Your task to perform on an android device: open the mobile data screen to see how much data has been used Image 0: 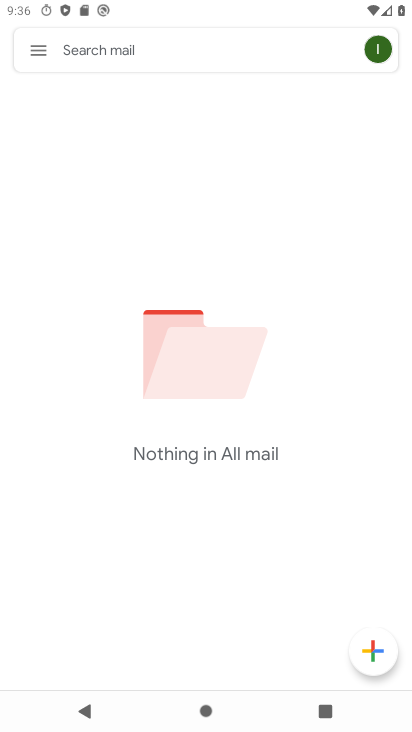
Step 0: press home button
Your task to perform on an android device: open the mobile data screen to see how much data has been used Image 1: 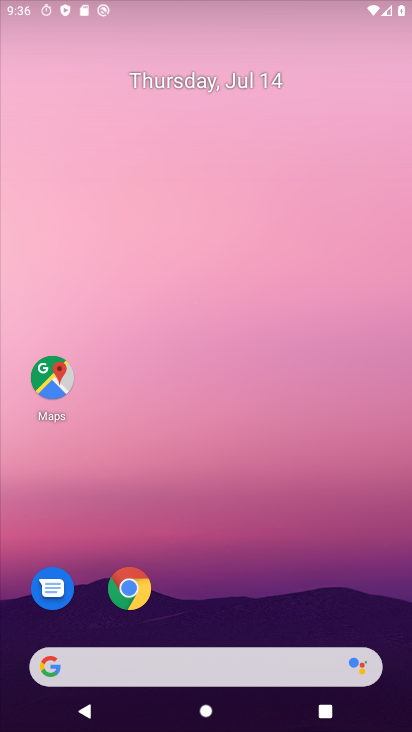
Step 1: drag from (206, 645) to (177, 222)
Your task to perform on an android device: open the mobile data screen to see how much data has been used Image 2: 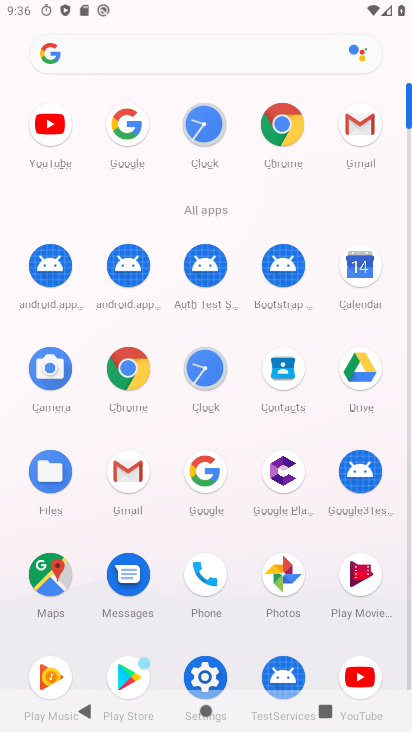
Step 2: click (197, 679)
Your task to perform on an android device: open the mobile data screen to see how much data has been used Image 3: 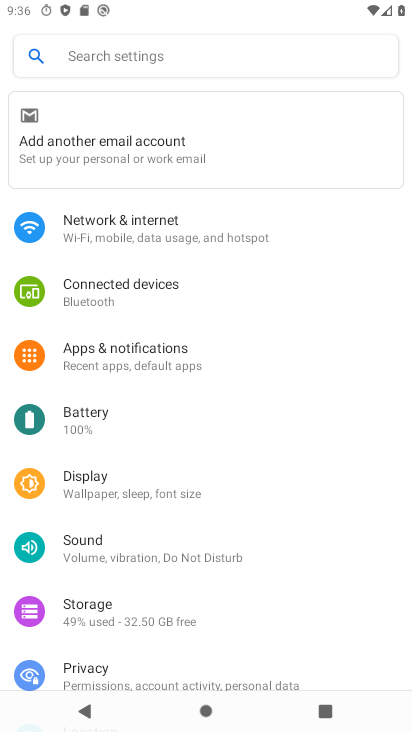
Step 3: click (132, 229)
Your task to perform on an android device: open the mobile data screen to see how much data has been used Image 4: 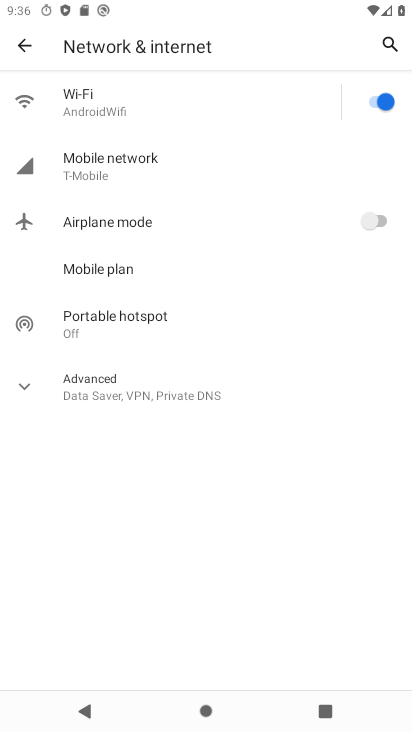
Step 4: click (109, 170)
Your task to perform on an android device: open the mobile data screen to see how much data has been used Image 5: 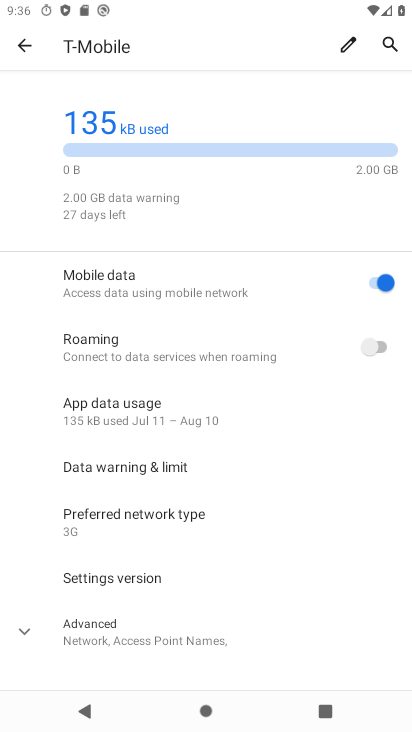
Step 5: task complete